Your task to perform on an android device: What's the weather going to be this weekend? Image 0: 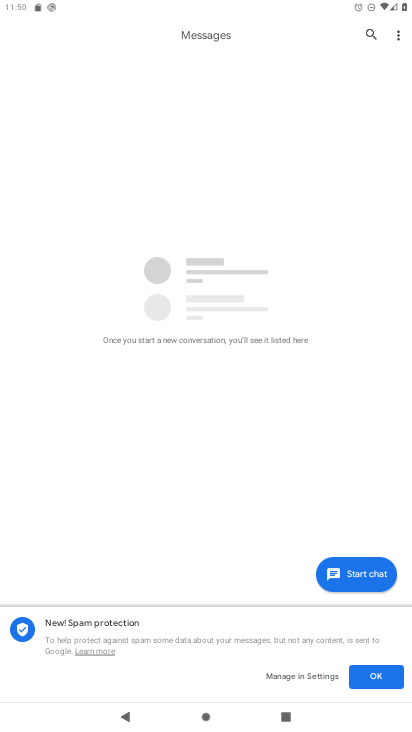
Step 0: press home button
Your task to perform on an android device: What's the weather going to be this weekend? Image 1: 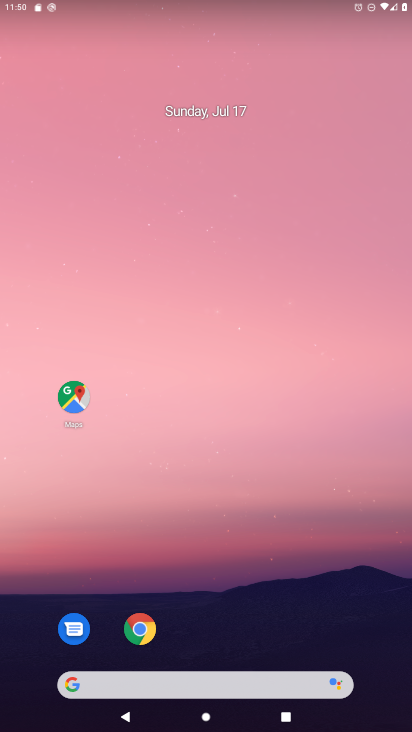
Step 1: drag from (192, 679) to (213, 128)
Your task to perform on an android device: What's the weather going to be this weekend? Image 2: 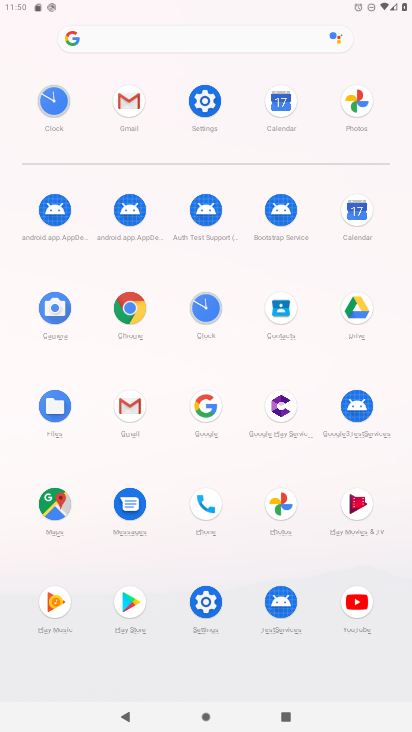
Step 2: click (202, 406)
Your task to perform on an android device: What's the weather going to be this weekend? Image 3: 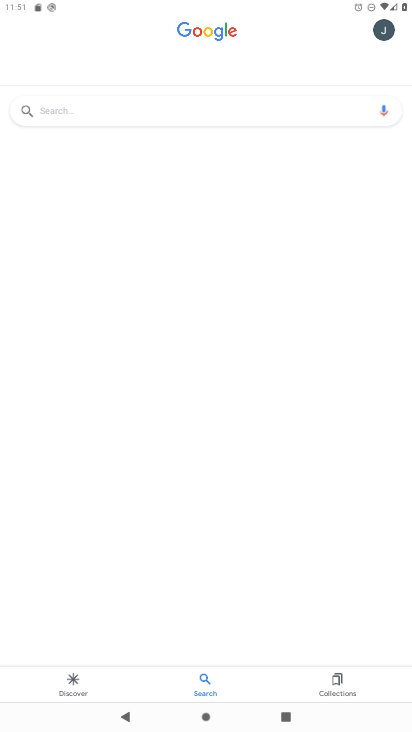
Step 3: click (131, 101)
Your task to perform on an android device: What's the weather going to be this weekend? Image 4: 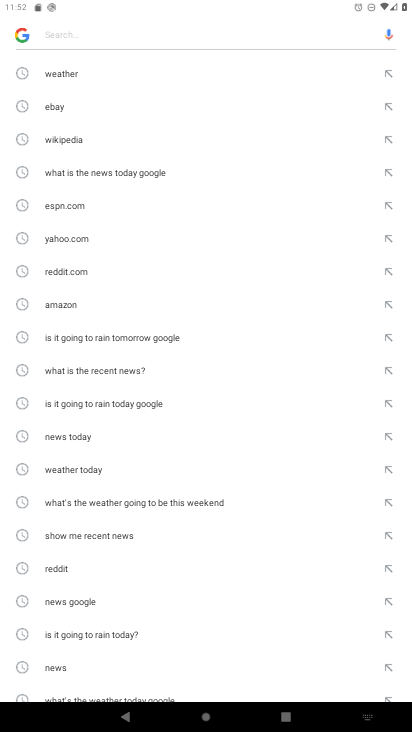
Step 4: type "What's the weather going to be this weekend?"
Your task to perform on an android device: What's the weather going to be this weekend? Image 5: 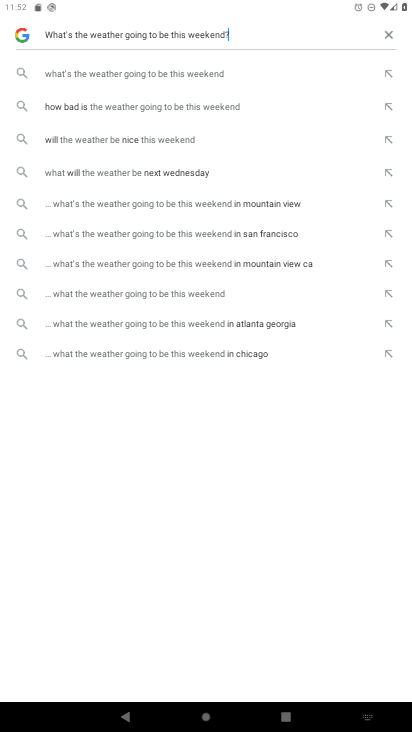
Step 5: click (205, 78)
Your task to perform on an android device: What's the weather going to be this weekend? Image 6: 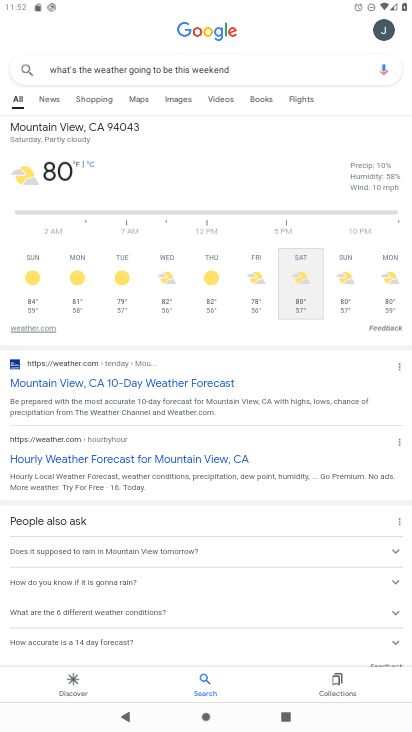
Step 6: task complete